Your task to perform on an android device: Go to CNN.com Image 0: 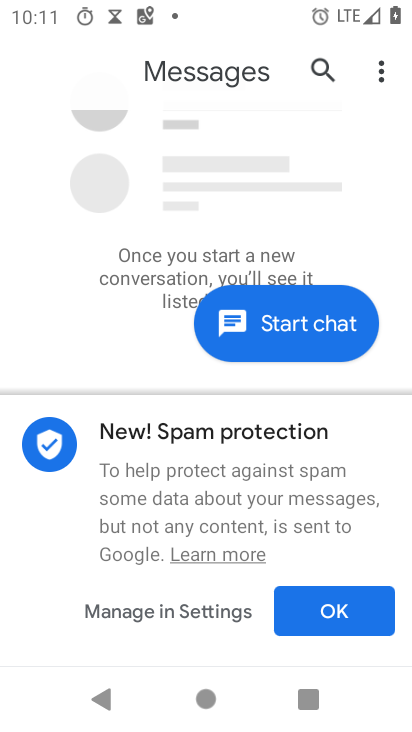
Step 0: press home button
Your task to perform on an android device: Go to CNN.com Image 1: 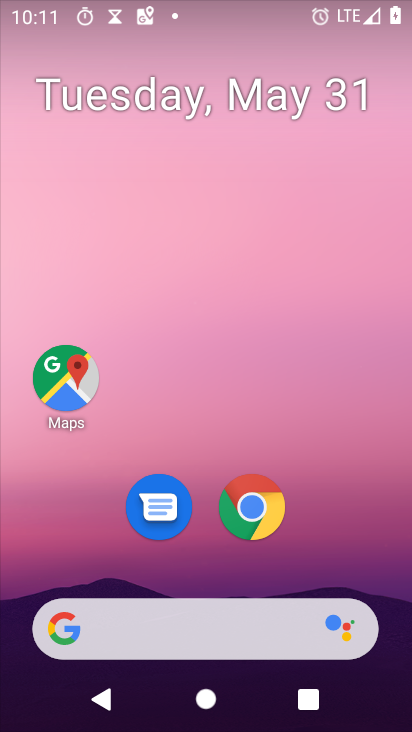
Step 1: click (252, 507)
Your task to perform on an android device: Go to CNN.com Image 2: 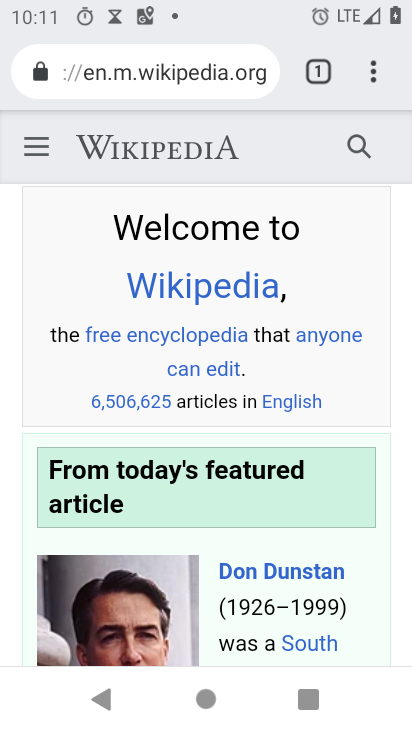
Step 2: click (127, 72)
Your task to perform on an android device: Go to CNN.com Image 3: 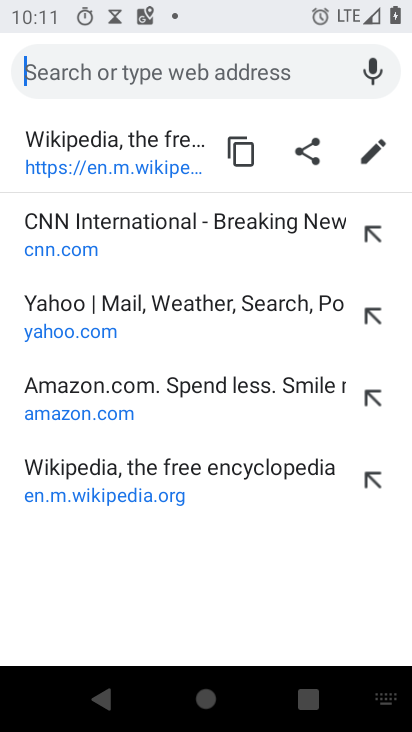
Step 3: type "CNN.com"
Your task to perform on an android device: Go to CNN.com Image 4: 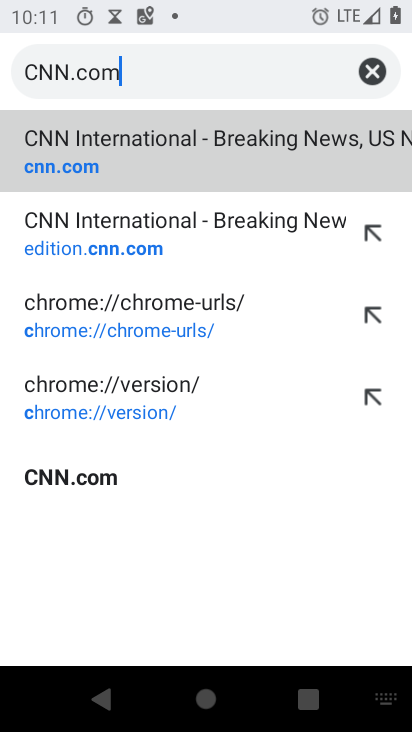
Step 4: type ""
Your task to perform on an android device: Go to CNN.com Image 5: 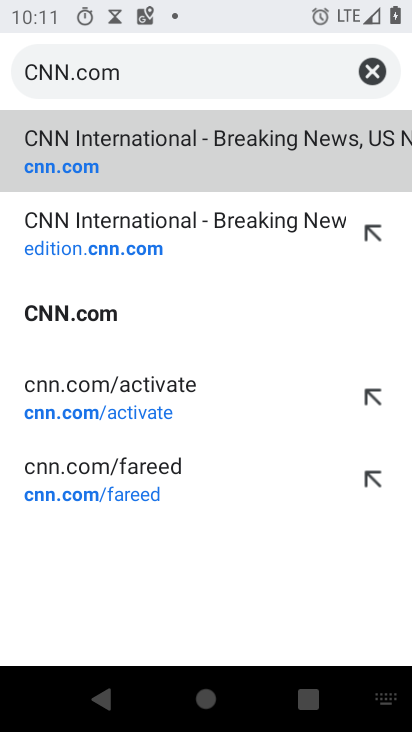
Step 5: click (162, 154)
Your task to perform on an android device: Go to CNN.com Image 6: 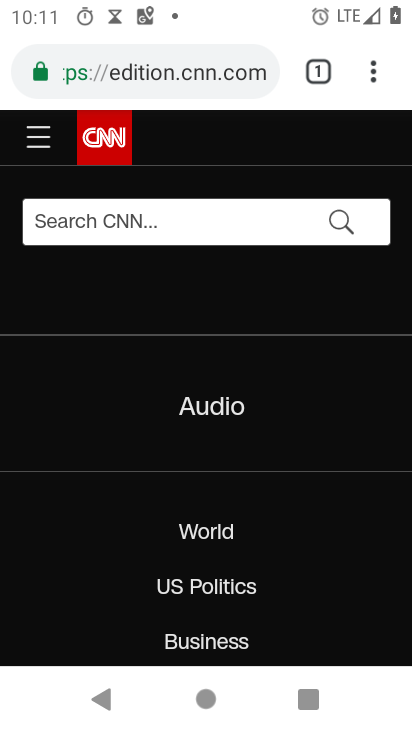
Step 6: task complete